Your task to perform on an android device: check google app version Image 0: 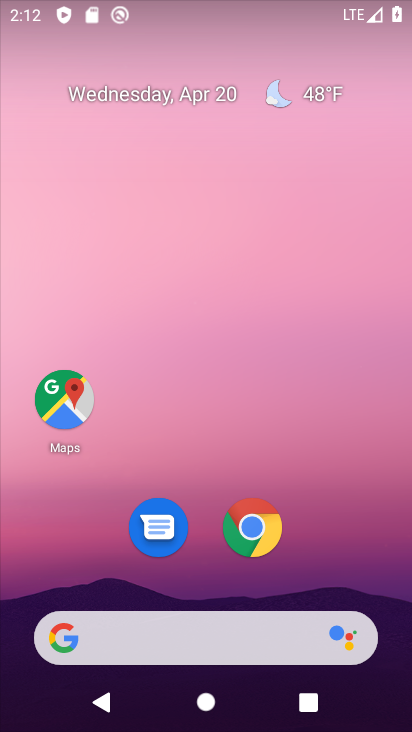
Step 0: click (60, 627)
Your task to perform on an android device: check google app version Image 1: 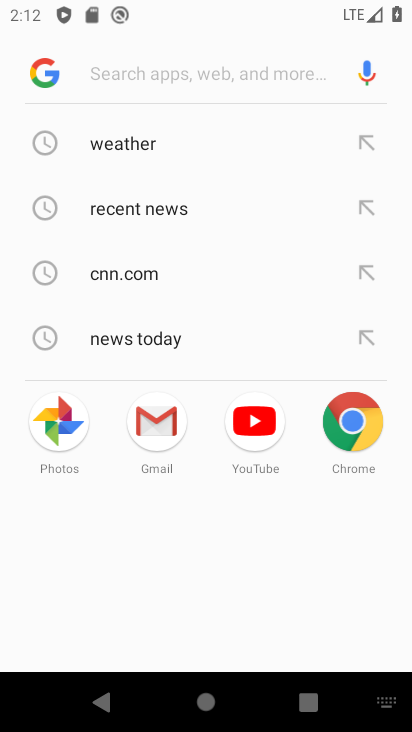
Step 1: click (54, 52)
Your task to perform on an android device: check google app version Image 2: 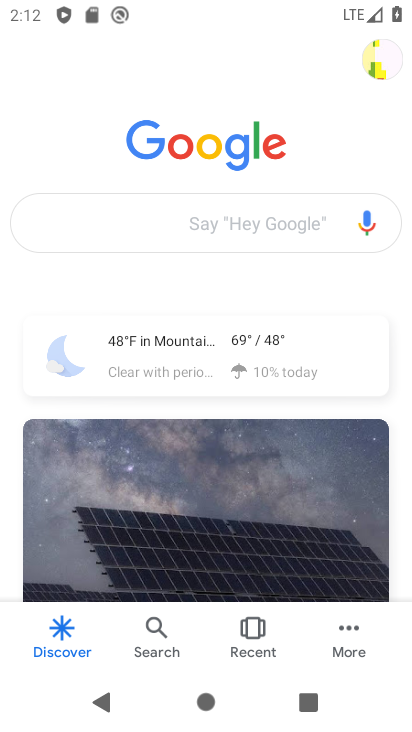
Step 2: click (388, 70)
Your task to perform on an android device: check google app version Image 3: 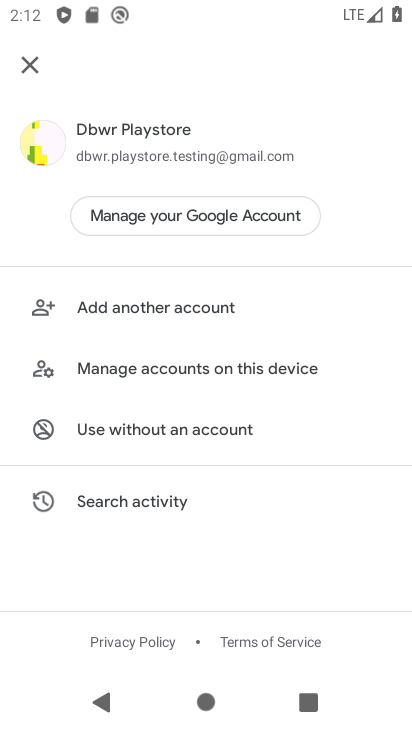
Step 3: click (34, 68)
Your task to perform on an android device: check google app version Image 4: 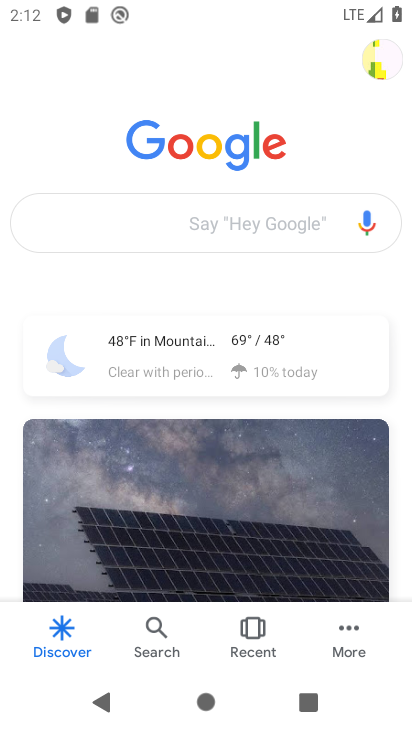
Step 4: click (355, 627)
Your task to perform on an android device: check google app version Image 5: 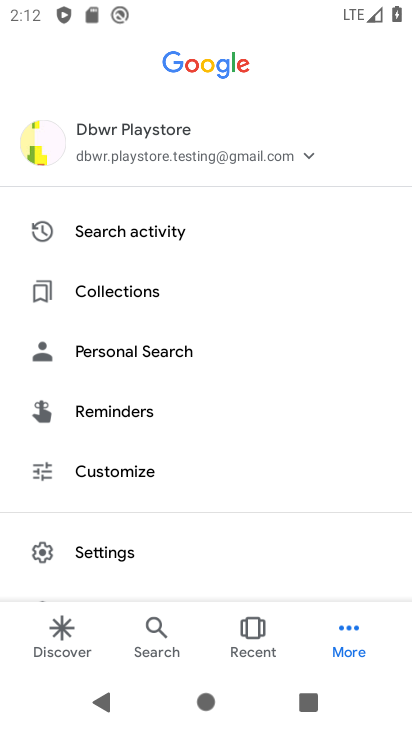
Step 5: click (124, 535)
Your task to perform on an android device: check google app version Image 6: 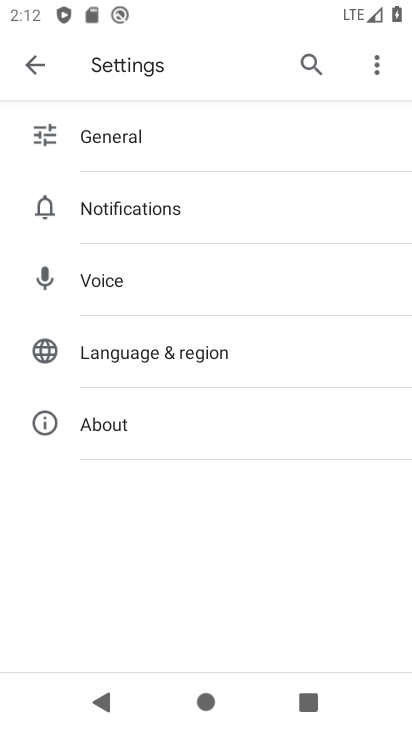
Step 6: click (104, 417)
Your task to perform on an android device: check google app version Image 7: 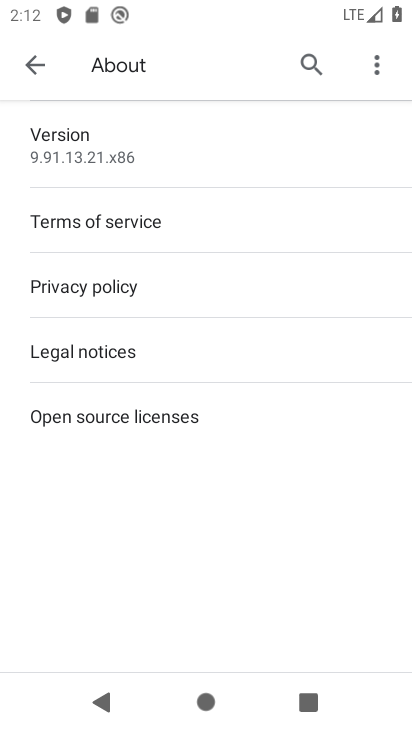
Step 7: task complete